Your task to perform on an android device: change keyboard looks Image 0: 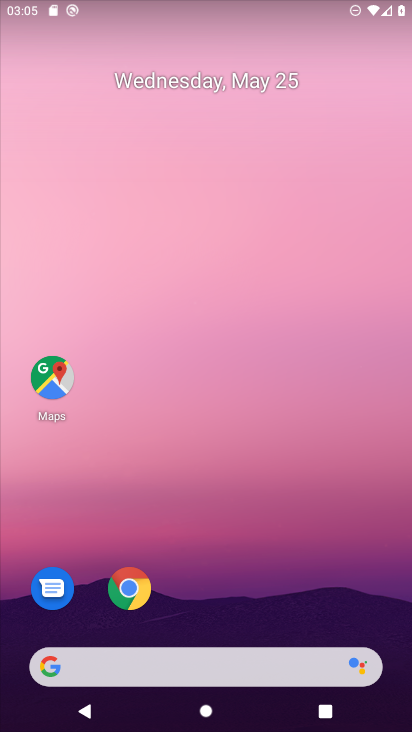
Step 0: press home button
Your task to perform on an android device: change keyboard looks Image 1: 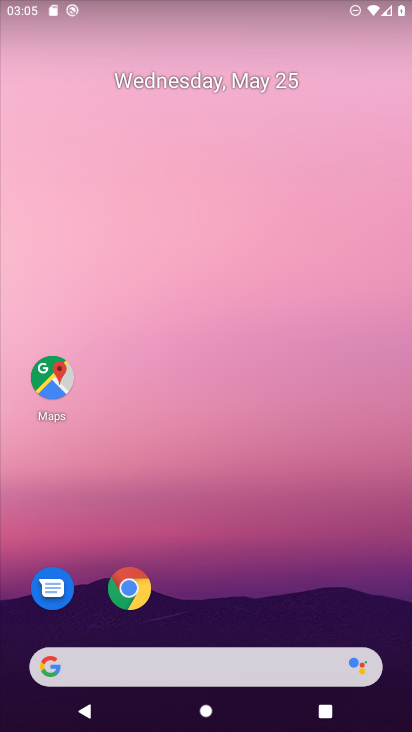
Step 1: drag from (250, 563) to (313, 0)
Your task to perform on an android device: change keyboard looks Image 2: 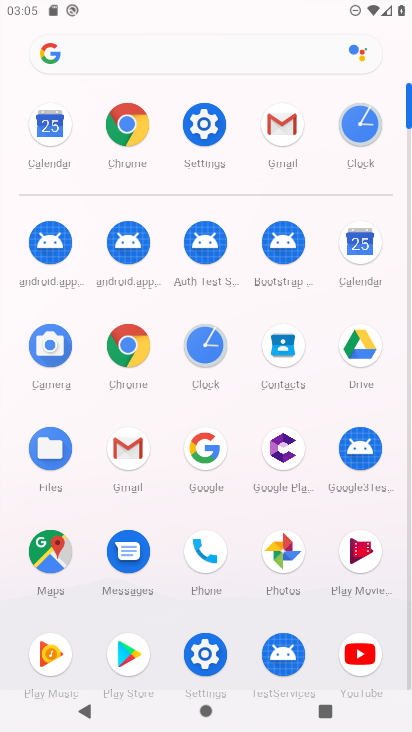
Step 2: click (201, 155)
Your task to perform on an android device: change keyboard looks Image 3: 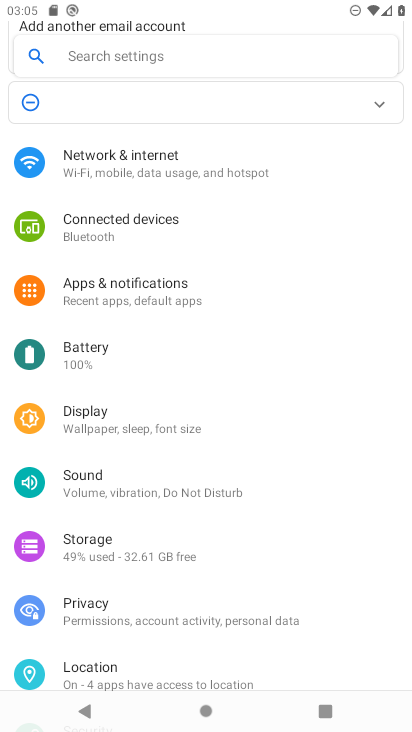
Step 3: drag from (74, 630) to (142, 243)
Your task to perform on an android device: change keyboard looks Image 4: 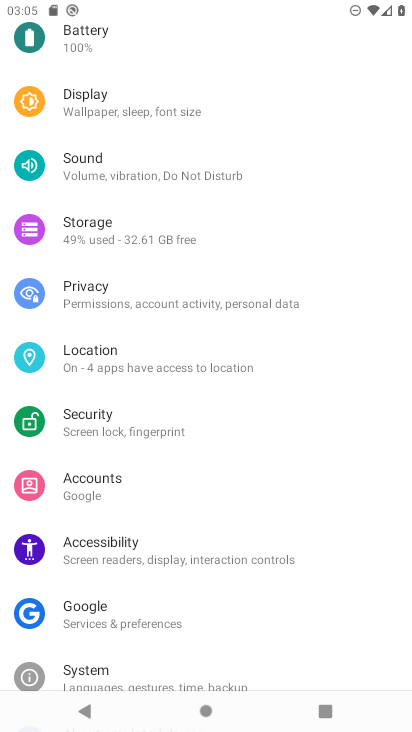
Step 4: click (73, 670)
Your task to perform on an android device: change keyboard looks Image 5: 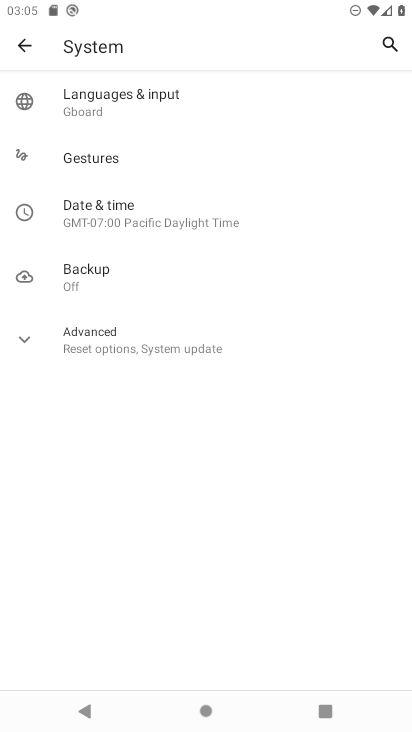
Step 5: click (148, 86)
Your task to perform on an android device: change keyboard looks Image 6: 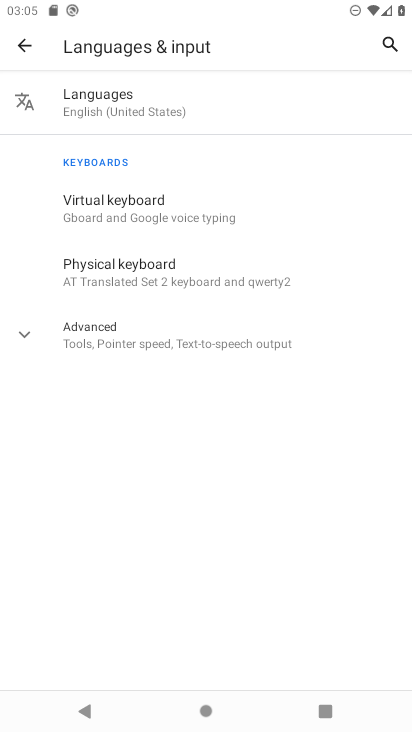
Step 6: click (144, 188)
Your task to perform on an android device: change keyboard looks Image 7: 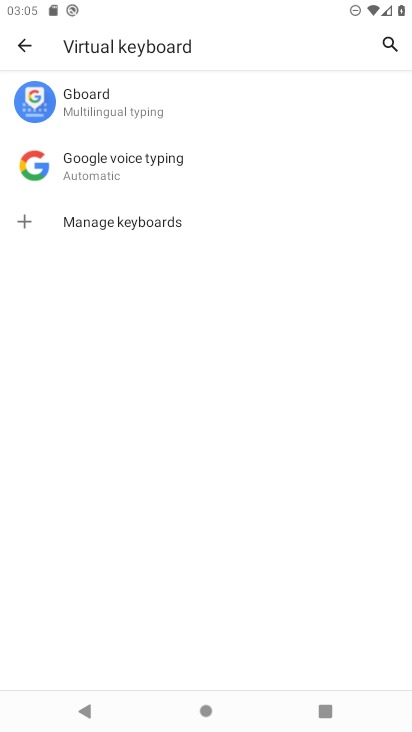
Step 7: click (160, 106)
Your task to perform on an android device: change keyboard looks Image 8: 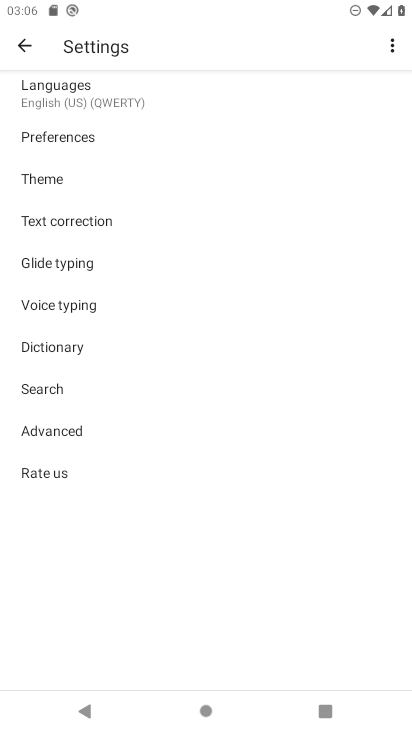
Step 8: click (147, 171)
Your task to perform on an android device: change keyboard looks Image 9: 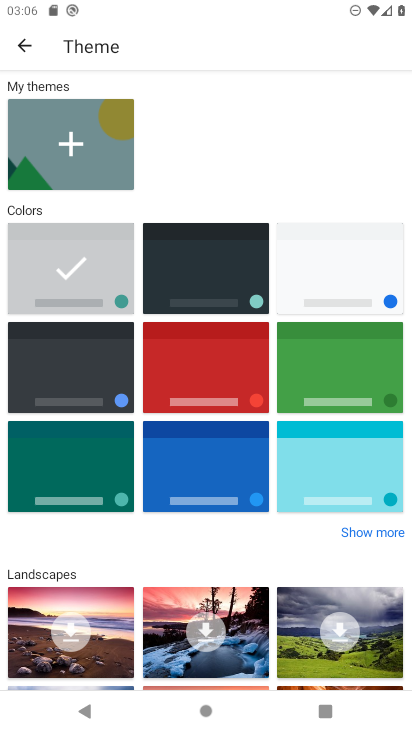
Step 9: click (311, 509)
Your task to perform on an android device: change keyboard looks Image 10: 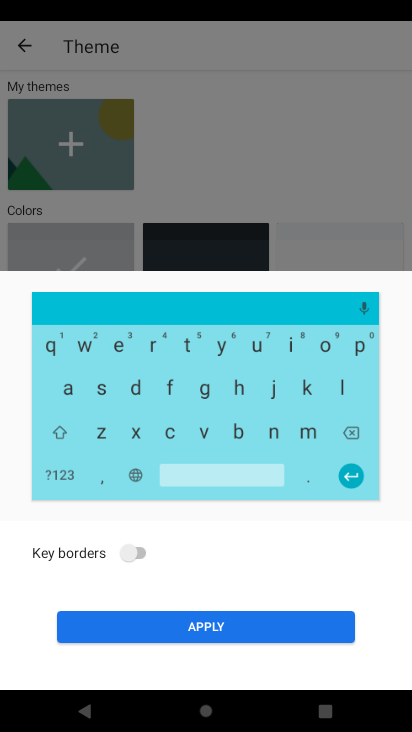
Step 10: click (117, 567)
Your task to perform on an android device: change keyboard looks Image 11: 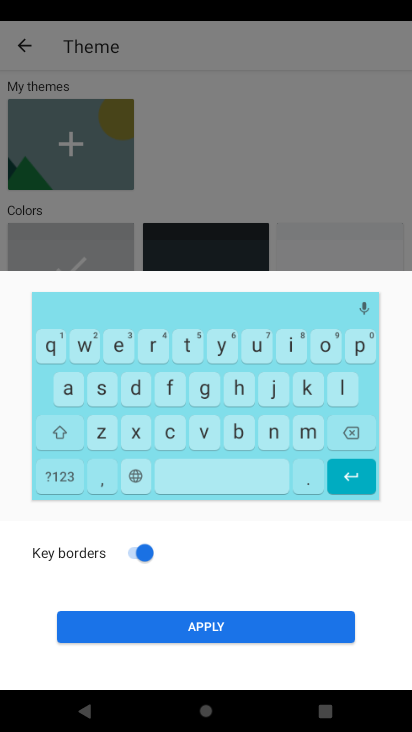
Step 11: click (173, 629)
Your task to perform on an android device: change keyboard looks Image 12: 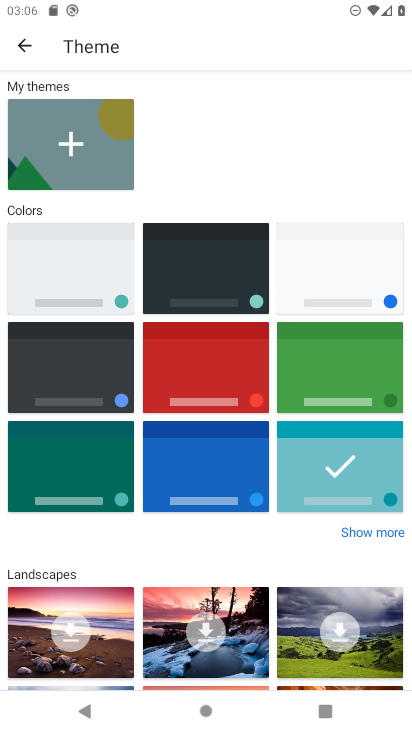
Step 12: task complete